Your task to perform on an android device: turn smart compose on in the gmail app Image 0: 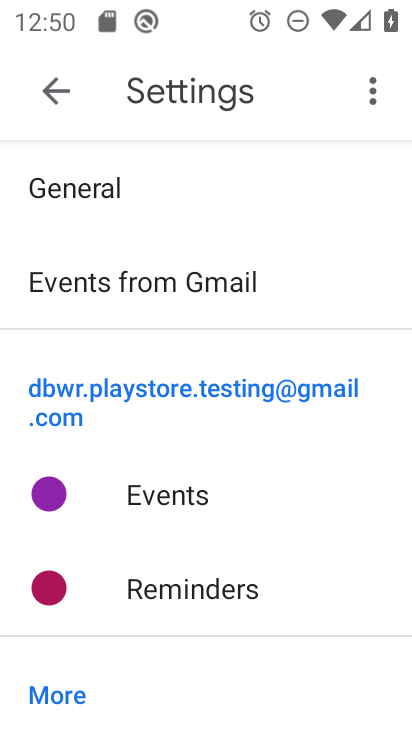
Step 0: press home button
Your task to perform on an android device: turn smart compose on in the gmail app Image 1: 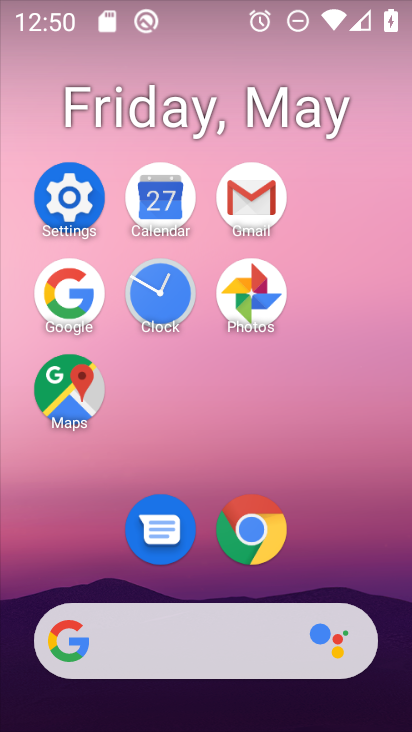
Step 1: click (262, 206)
Your task to perform on an android device: turn smart compose on in the gmail app Image 2: 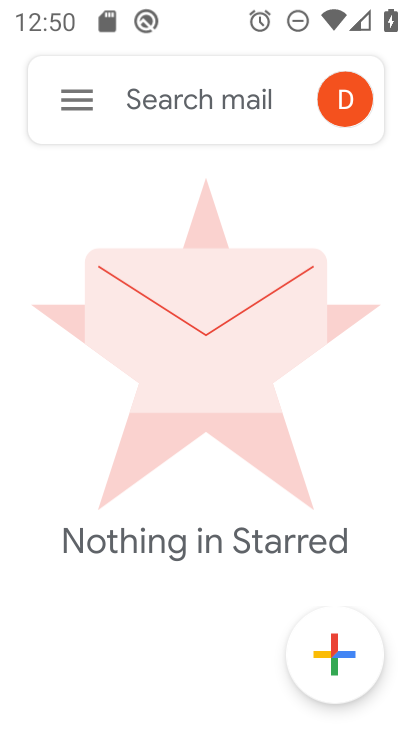
Step 2: click (105, 129)
Your task to perform on an android device: turn smart compose on in the gmail app Image 3: 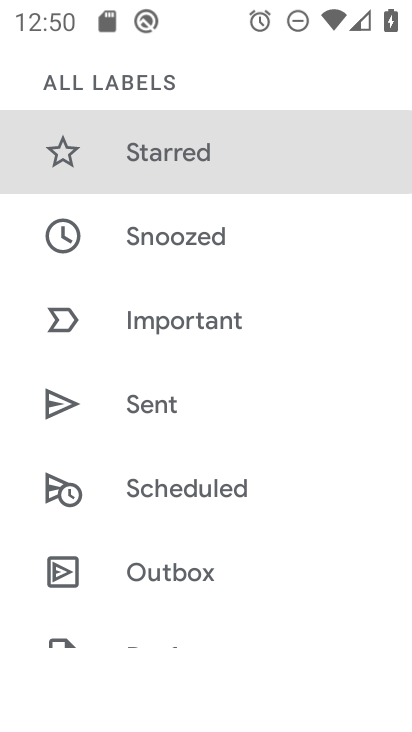
Step 3: drag from (218, 548) to (195, 102)
Your task to perform on an android device: turn smart compose on in the gmail app Image 4: 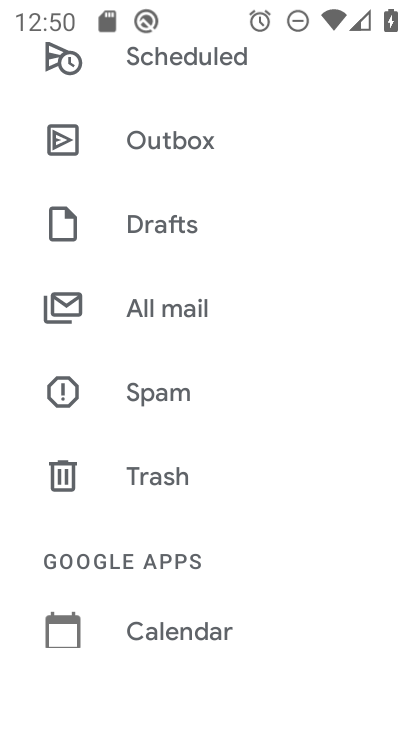
Step 4: drag from (212, 562) to (228, 185)
Your task to perform on an android device: turn smart compose on in the gmail app Image 5: 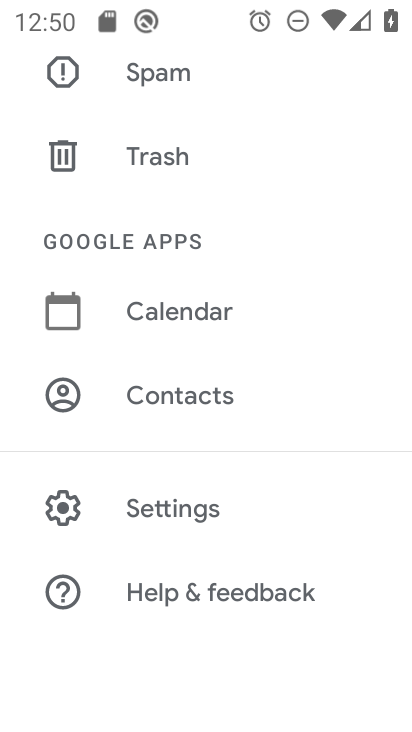
Step 5: click (216, 508)
Your task to perform on an android device: turn smart compose on in the gmail app Image 6: 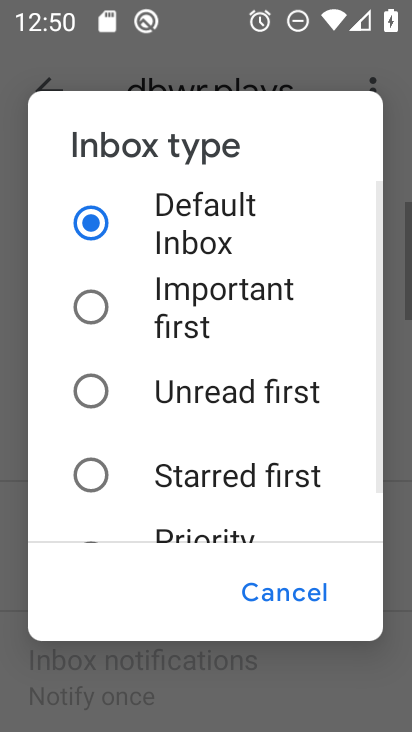
Step 6: click (280, 581)
Your task to perform on an android device: turn smart compose on in the gmail app Image 7: 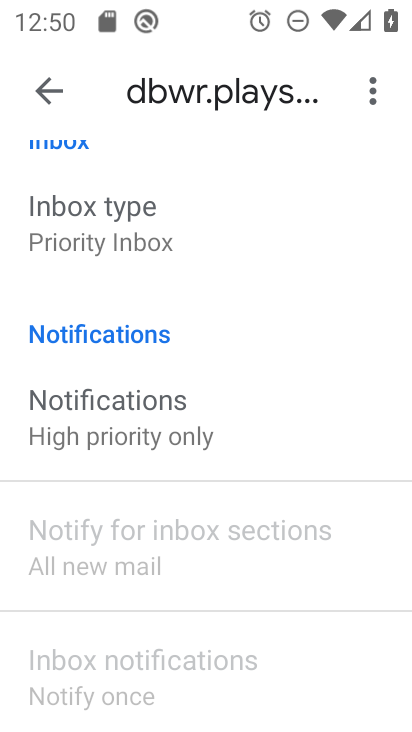
Step 7: task complete